Your task to perform on an android device: Is it going to rain today? Image 0: 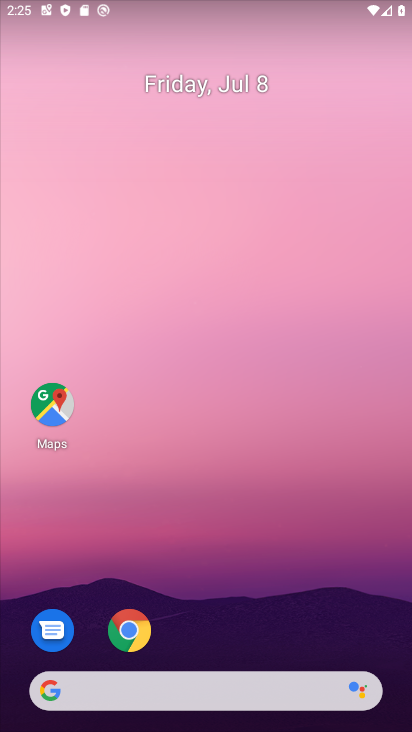
Step 0: drag from (293, 628) to (246, 149)
Your task to perform on an android device: Is it going to rain today? Image 1: 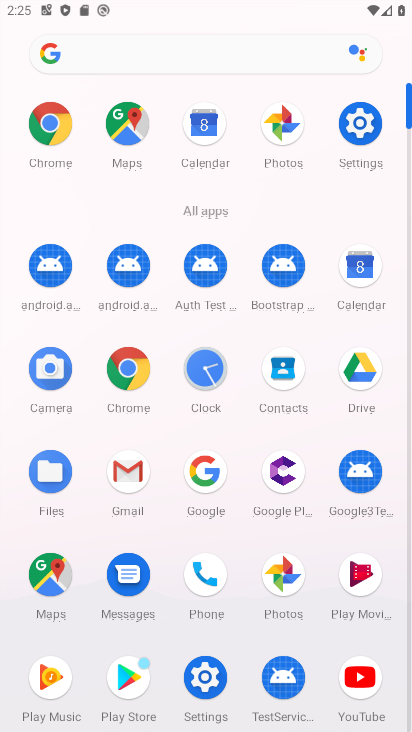
Step 1: click (146, 59)
Your task to perform on an android device: Is it going to rain today? Image 2: 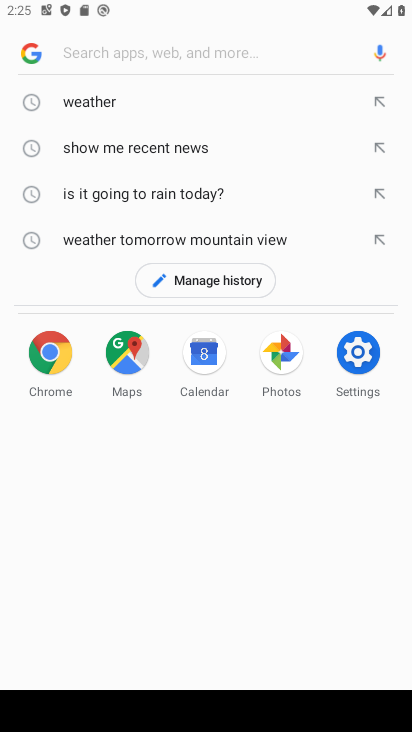
Step 2: click (174, 118)
Your task to perform on an android device: Is it going to rain today? Image 3: 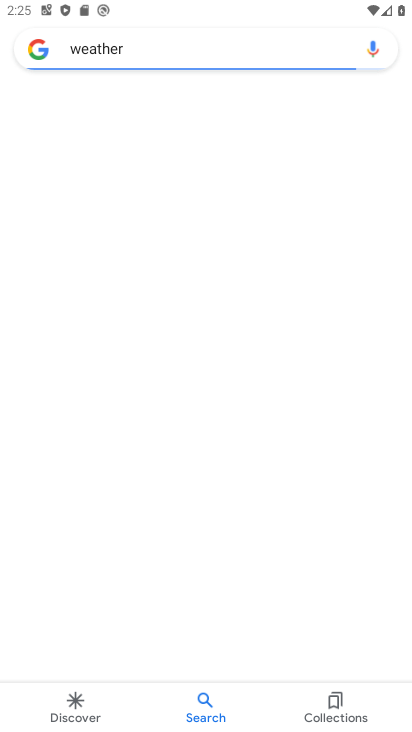
Step 3: task complete